Your task to perform on an android device: Go to display settings Image 0: 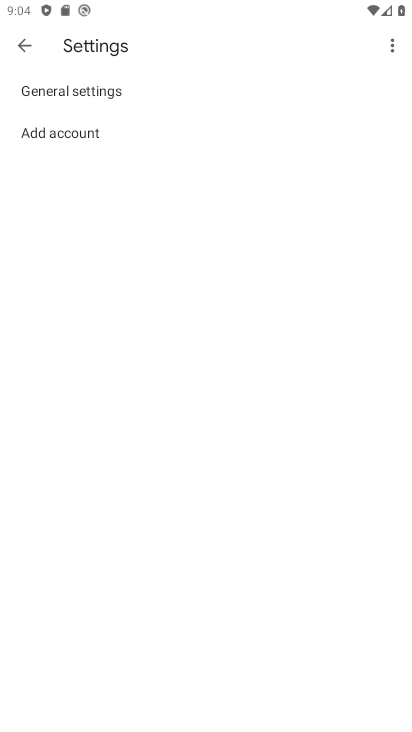
Step 0: press home button
Your task to perform on an android device: Go to display settings Image 1: 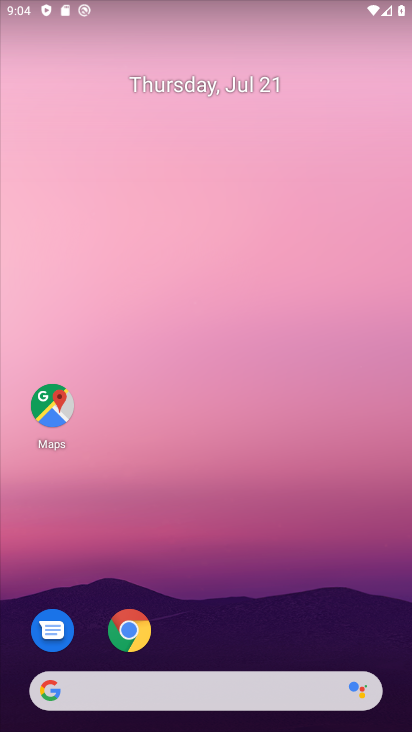
Step 1: drag from (390, 479) to (178, 226)
Your task to perform on an android device: Go to display settings Image 2: 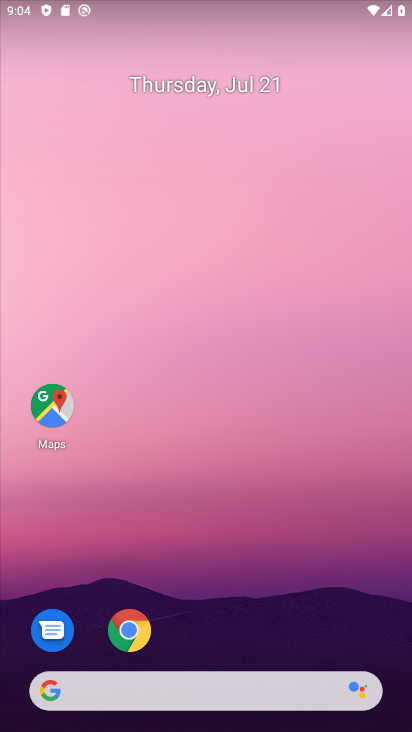
Step 2: drag from (216, 719) to (191, 220)
Your task to perform on an android device: Go to display settings Image 3: 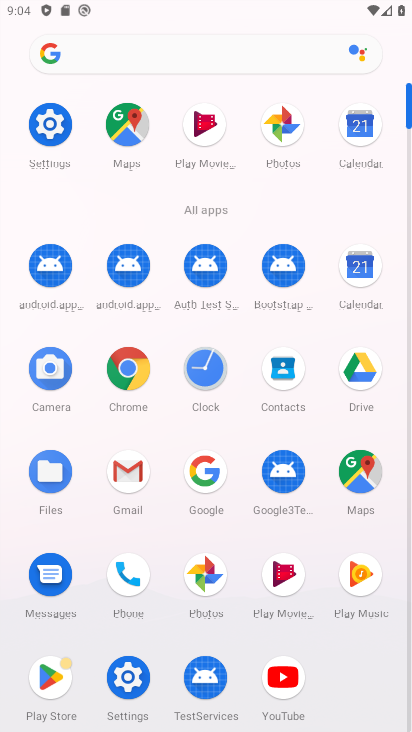
Step 3: click (54, 130)
Your task to perform on an android device: Go to display settings Image 4: 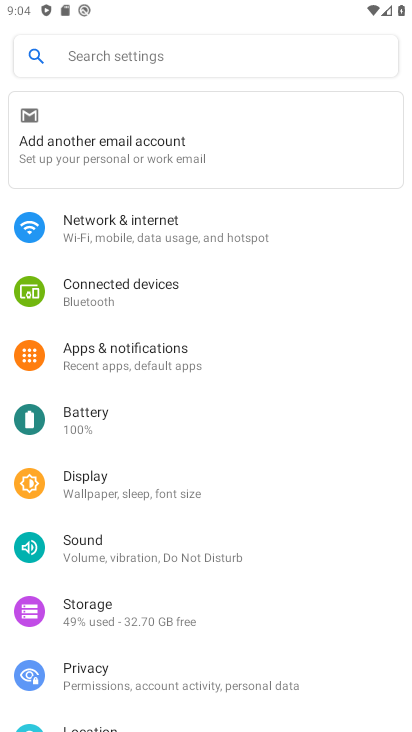
Step 4: click (92, 481)
Your task to perform on an android device: Go to display settings Image 5: 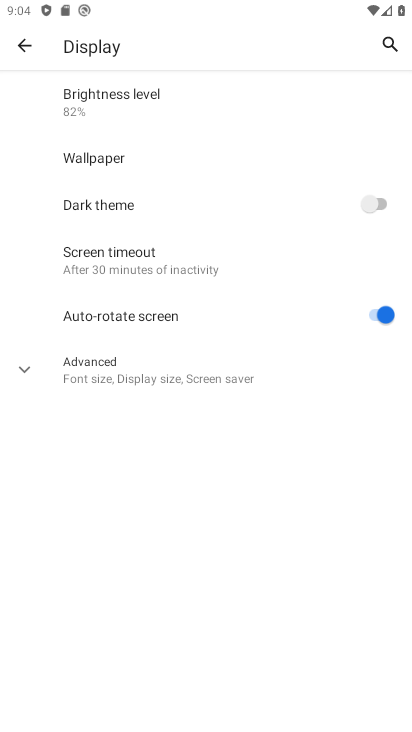
Step 5: task complete